Your task to perform on an android device: Open Youtube and go to "Your channel" Image 0: 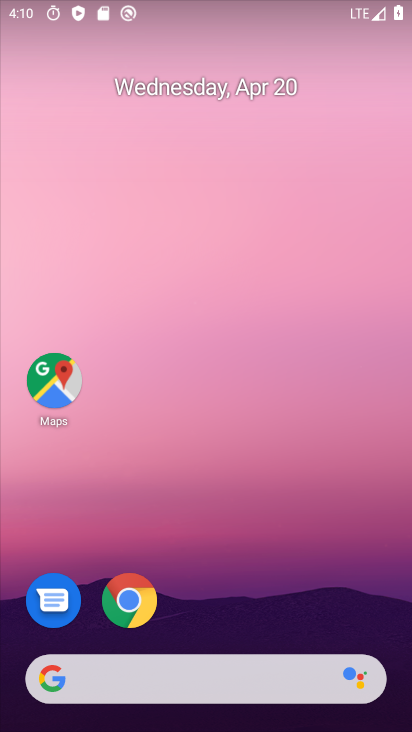
Step 0: drag from (308, 463) to (277, 144)
Your task to perform on an android device: Open Youtube and go to "Your channel" Image 1: 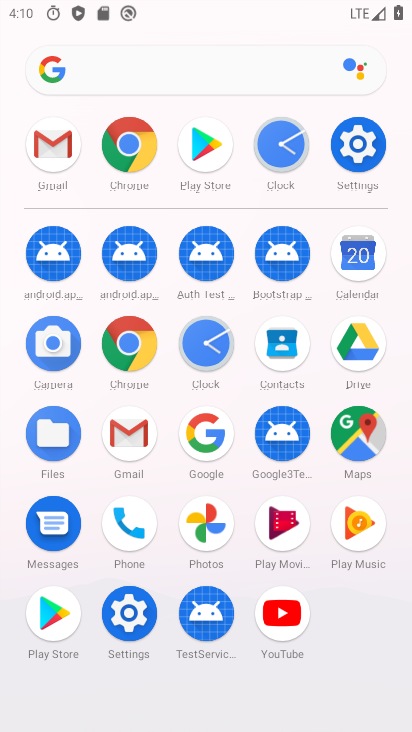
Step 1: click (284, 614)
Your task to perform on an android device: Open Youtube and go to "Your channel" Image 2: 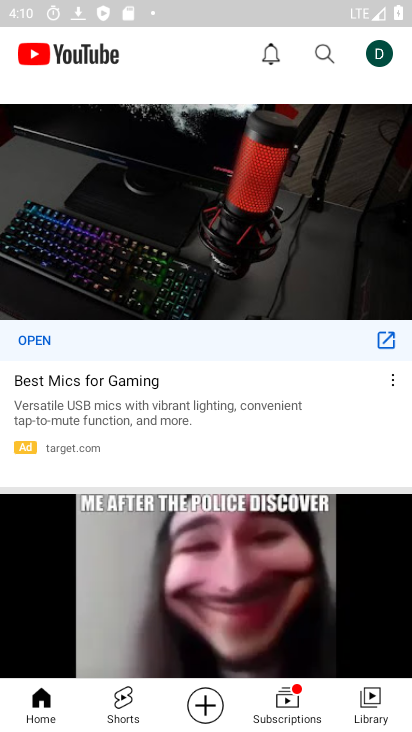
Step 2: click (384, 56)
Your task to perform on an android device: Open Youtube and go to "Your channel" Image 3: 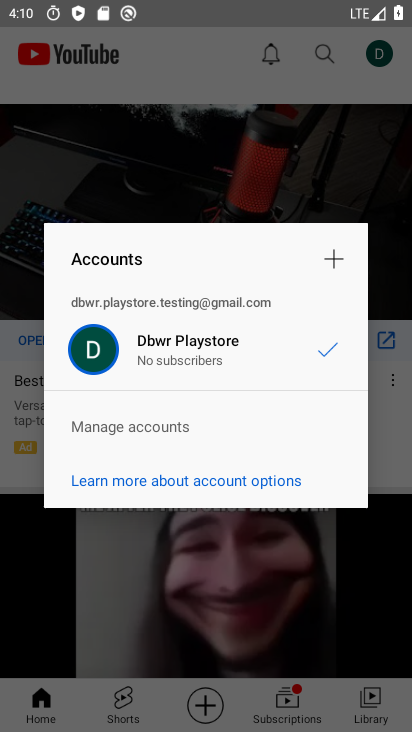
Step 3: click (384, 56)
Your task to perform on an android device: Open Youtube and go to "Your channel" Image 4: 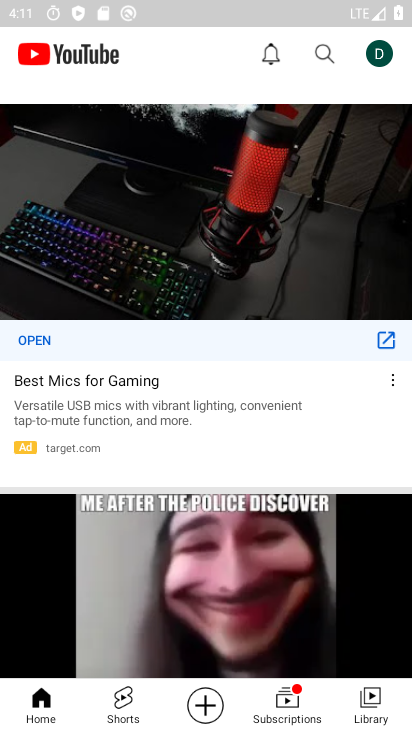
Step 4: click (384, 56)
Your task to perform on an android device: Open Youtube and go to "Your channel" Image 5: 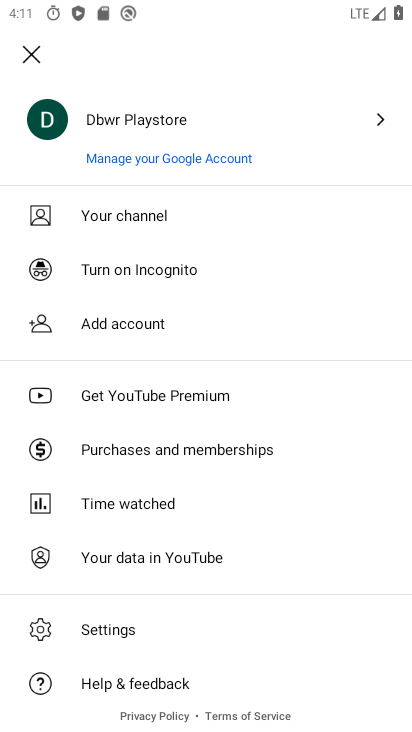
Step 5: click (156, 222)
Your task to perform on an android device: Open Youtube and go to "Your channel" Image 6: 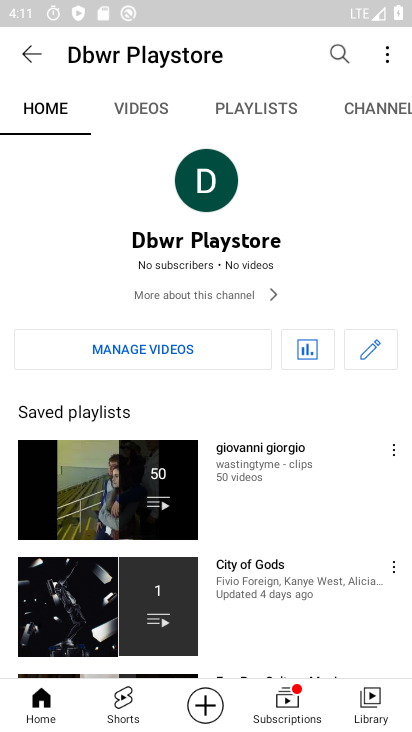
Step 6: task complete